Your task to perform on an android device: What's the weather today? Image 0: 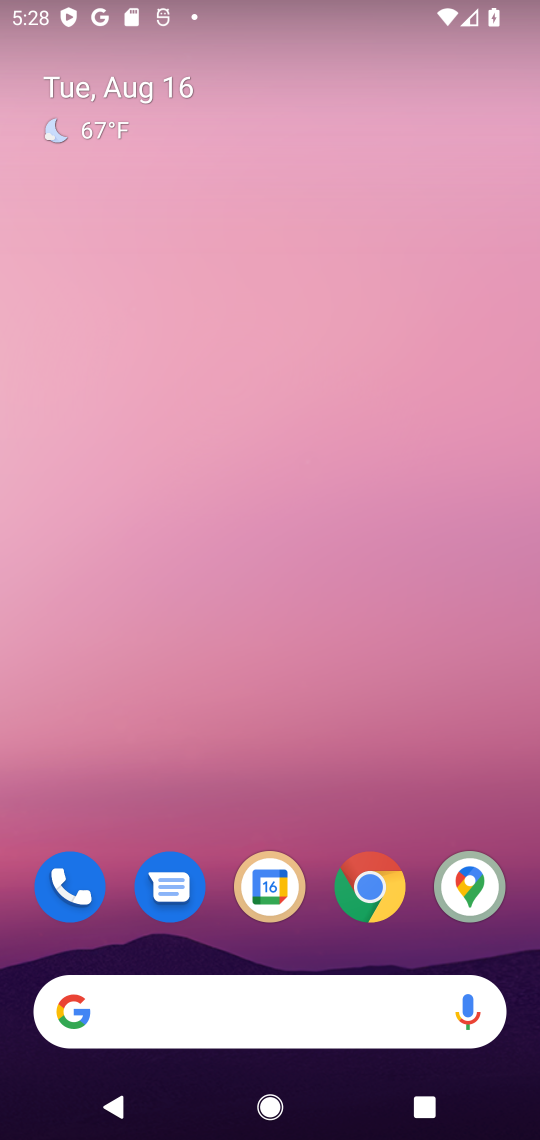
Step 0: click (287, 1138)
Your task to perform on an android device: What's the weather today? Image 1: 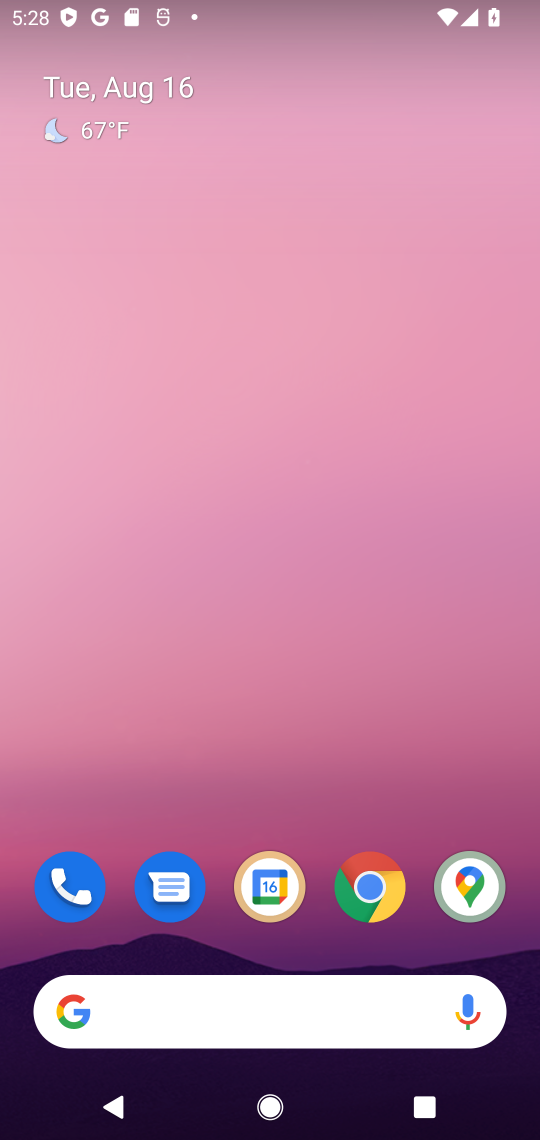
Step 1: click (96, 130)
Your task to perform on an android device: What's the weather today? Image 2: 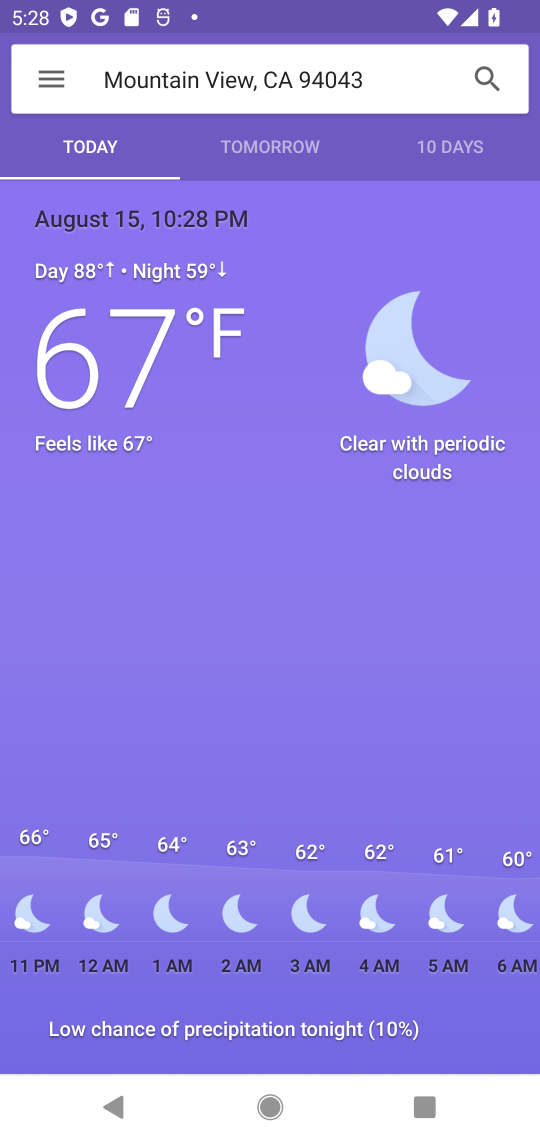
Step 2: task complete